Your task to perform on an android device: move a message to another label in the gmail app Image 0: 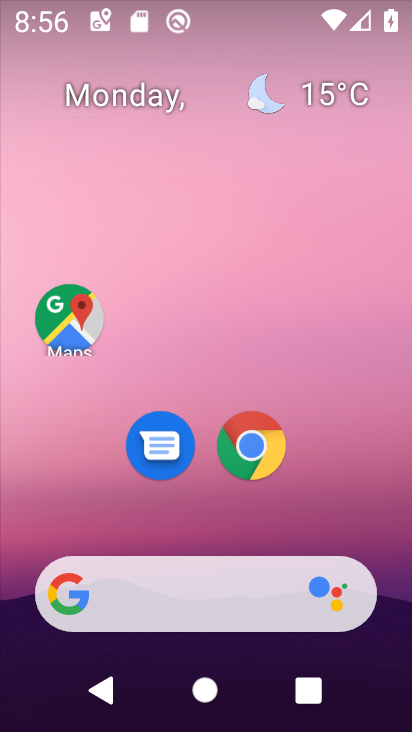
Step 0: drag from (206, 526) to (225, 62)
Your task to perform on an android device: move a message to another label in the gmail app Image 1: 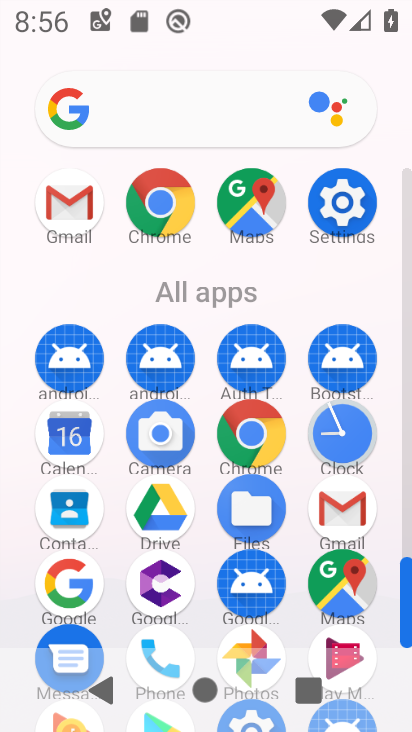
Step 1: click (340, 499)
Your task to perform on an android device: move a message to another label in the gmail app Image 2: 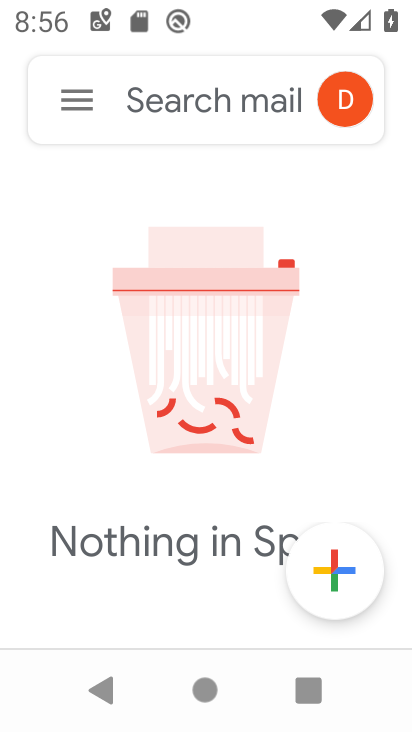
Step 2: click (68, 87)
Your task to perform on an android device: move a message to another label in the gmail app Image 3: 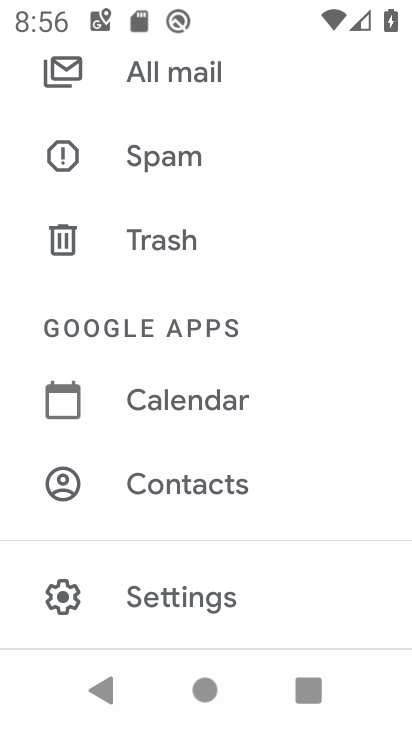
Step 3: drag from (137, 532) to (160, 232)
Your task to perform on an android device: move a message to another label in the gmail app Image 4: 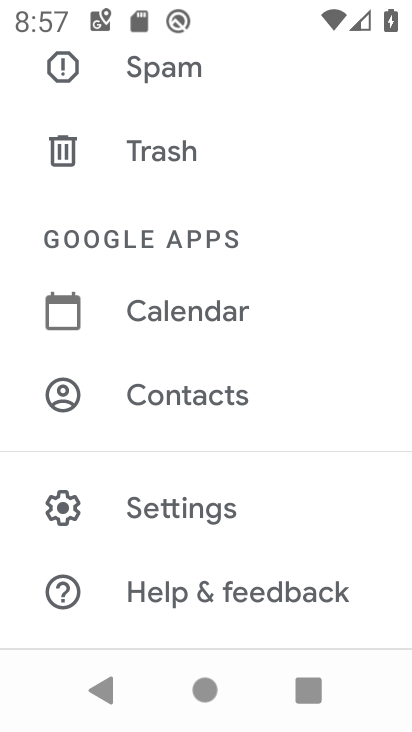
Step 4: press back button
Your task to perform on an android device: move a message to another label in the gmail app Image 5: 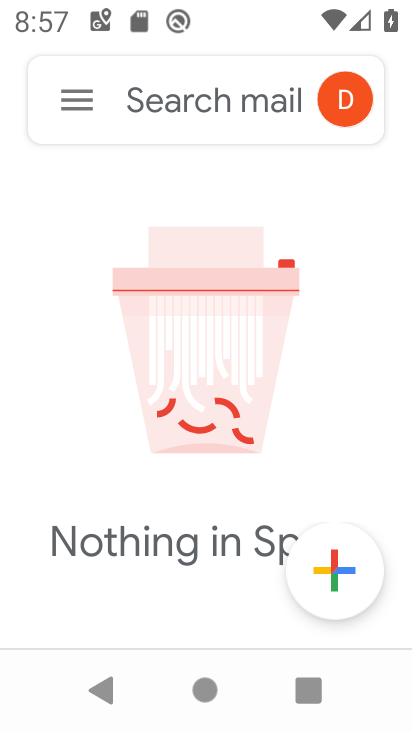
Step 5: click (76, 94)
Your task to perform on an android device: move a message to another label in the gmail app Image 6: 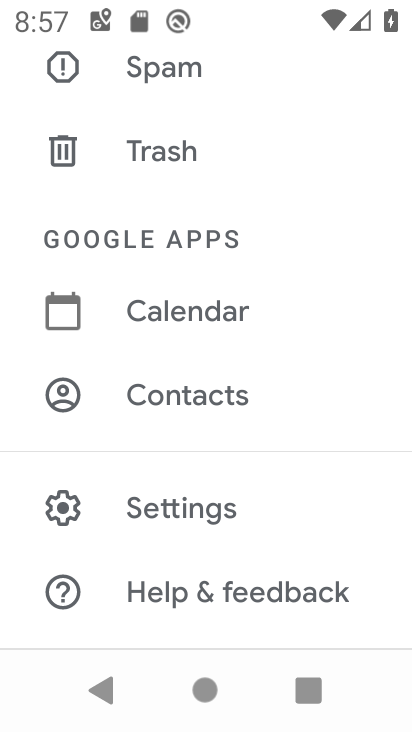
Step 6: drag from (143, 130) to (159, 504)
Your task to perform on an android device: move a message to another label in the gmail app Image 7: 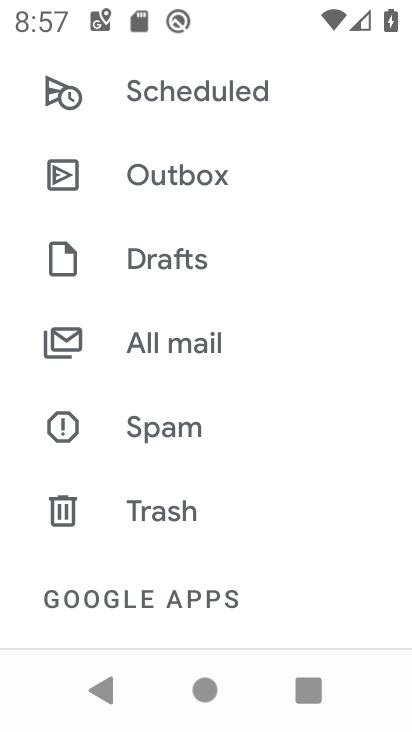
Step 7: click (128, 340)
Your task to perform on an android device: move a message to another label in the gmail app Image 8: 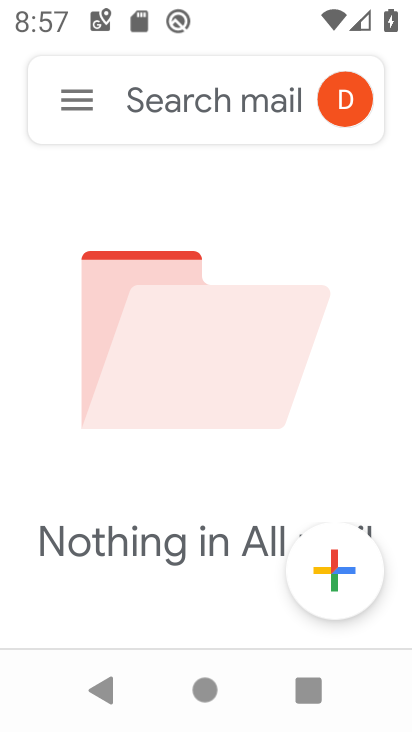
Step 8: task complete